Your task to perform on an android device: Check the news Image 0: 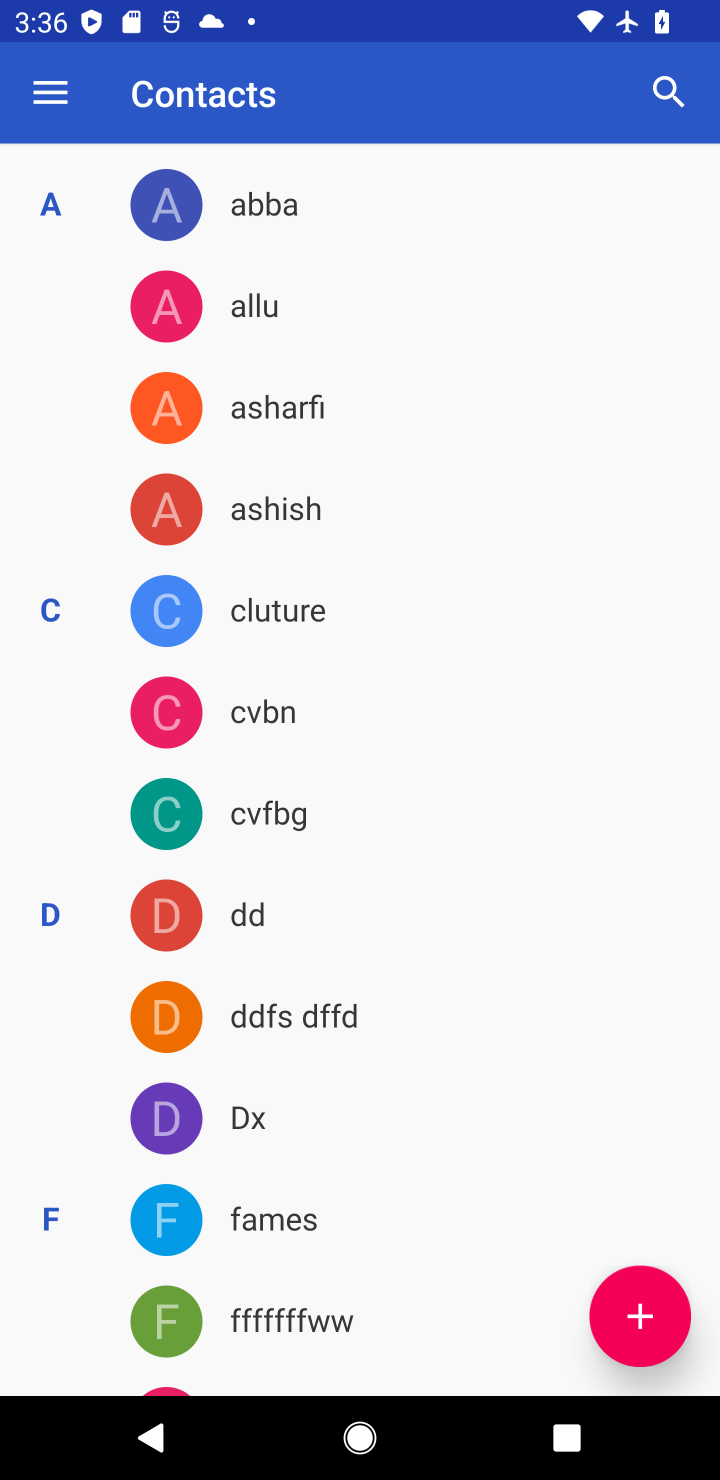
Step 0: press home button
Your task to perform on an android device: Check the news Image 1: 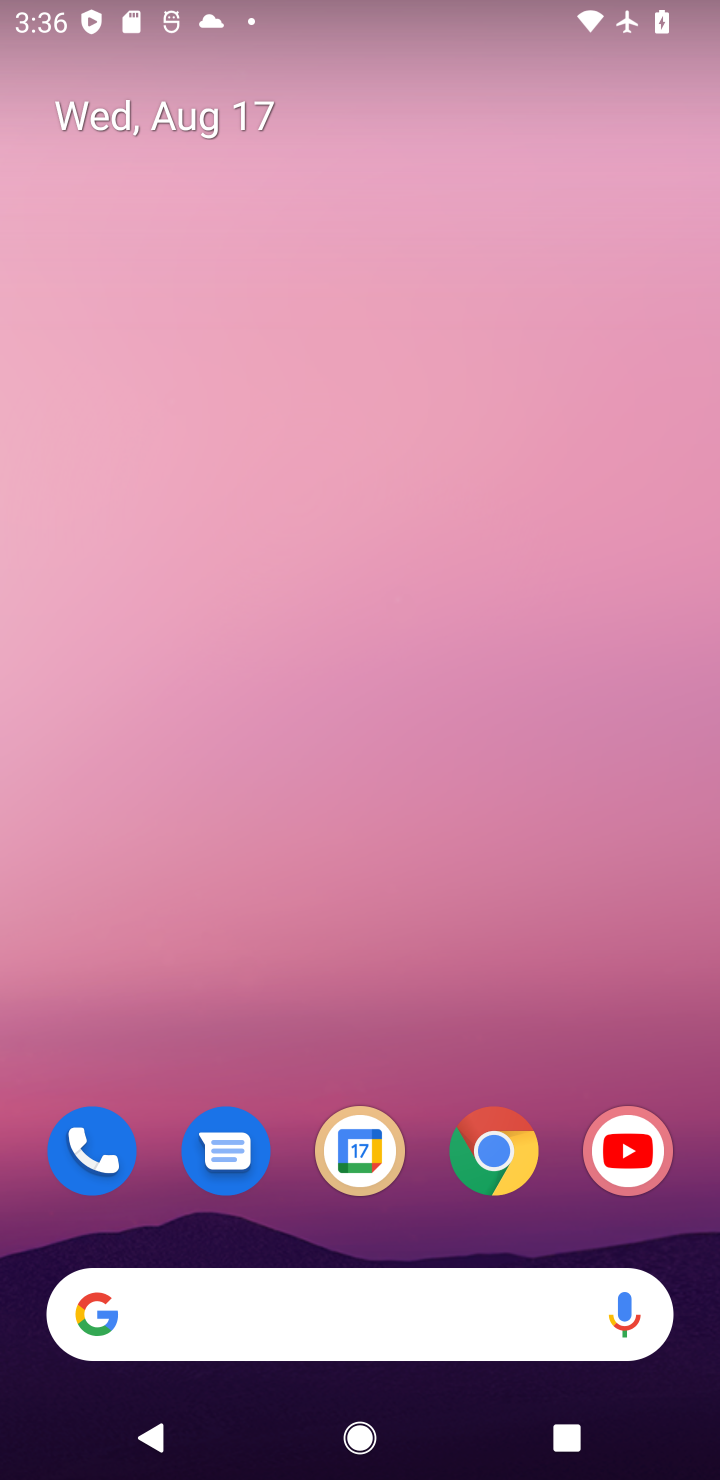
Step 1: drag from (283, 426) to (315, 28)
Your task to perform on an android device: Check the news Image 2: 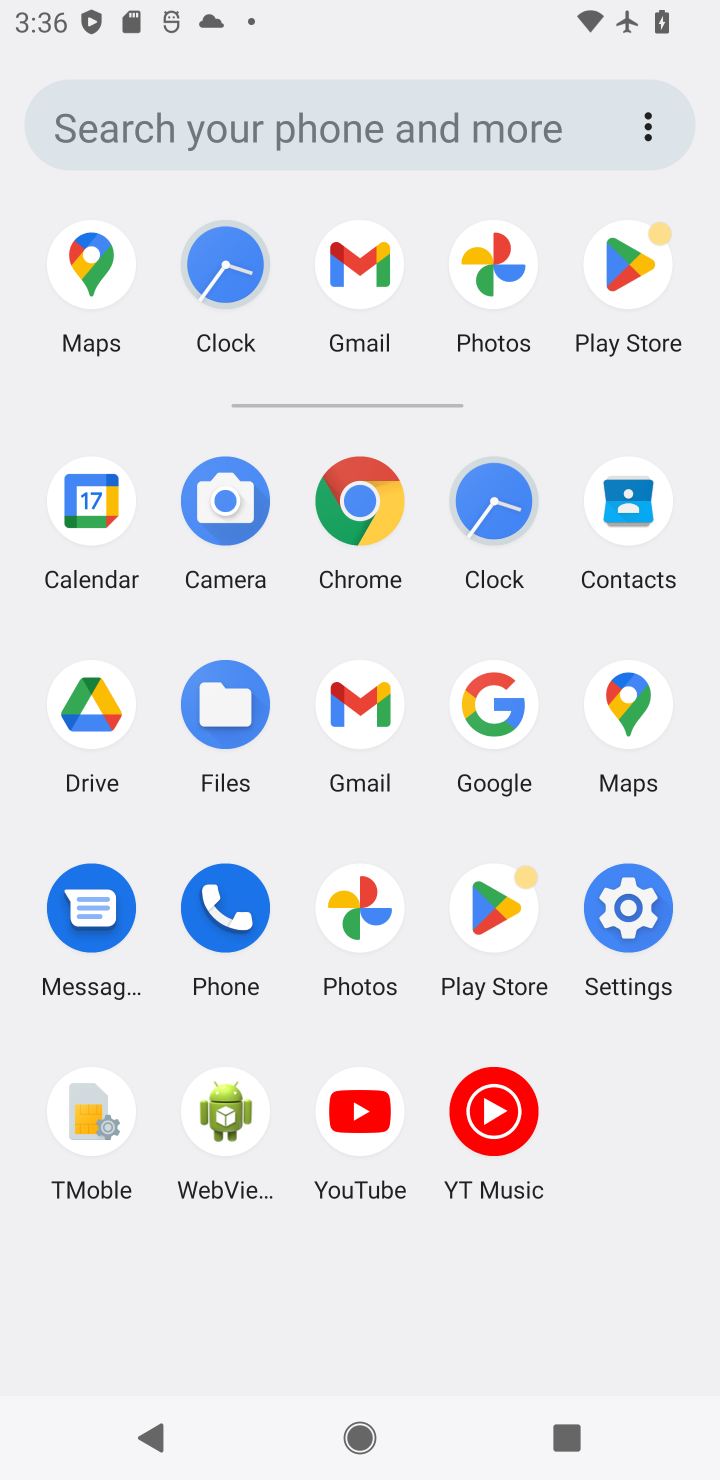
Step 2: click (391, 505)
Your task to perform on an android device: Check the news Image 3: 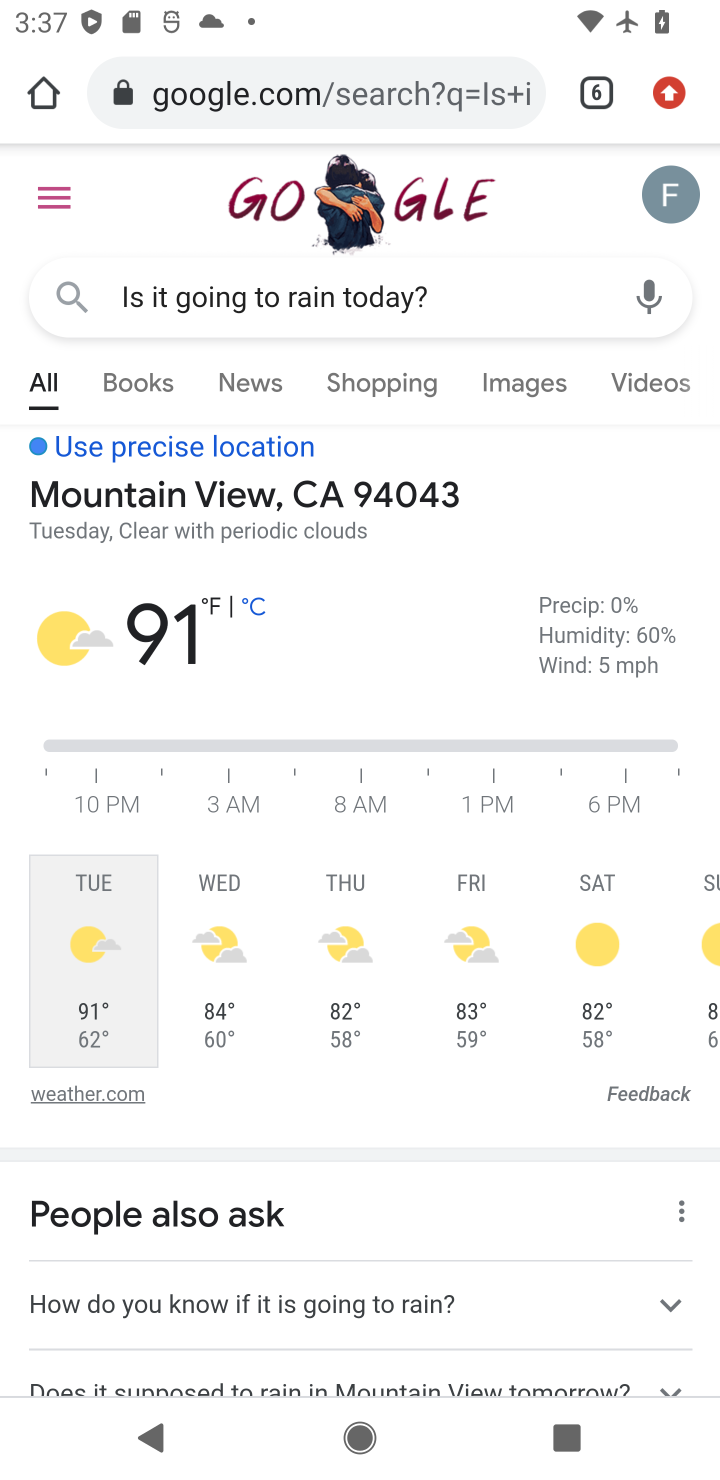
Step 3: click (661, 96)
Your task to perform on an android device: Check the news Image 4: 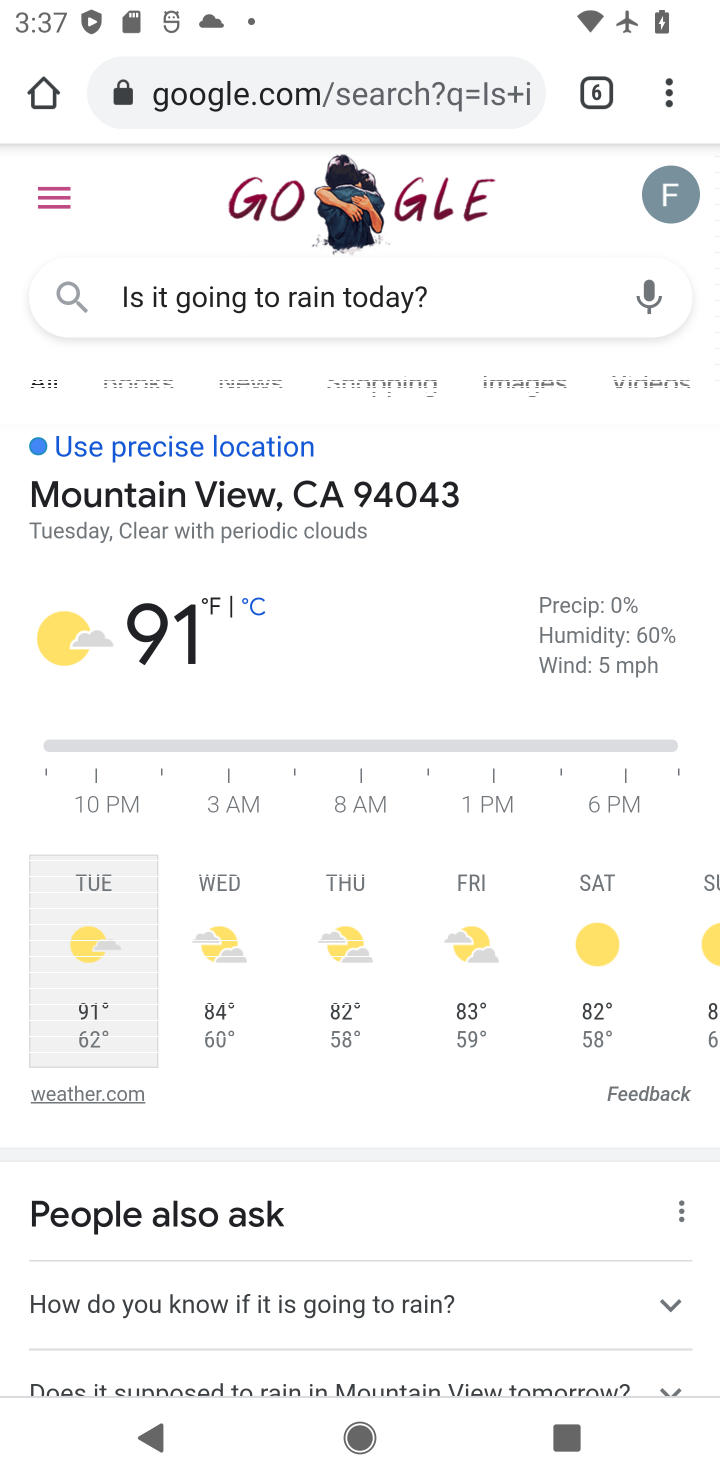
Step 4: click (673, 100)
Your task to perform on an android device: Check the news Image 5: 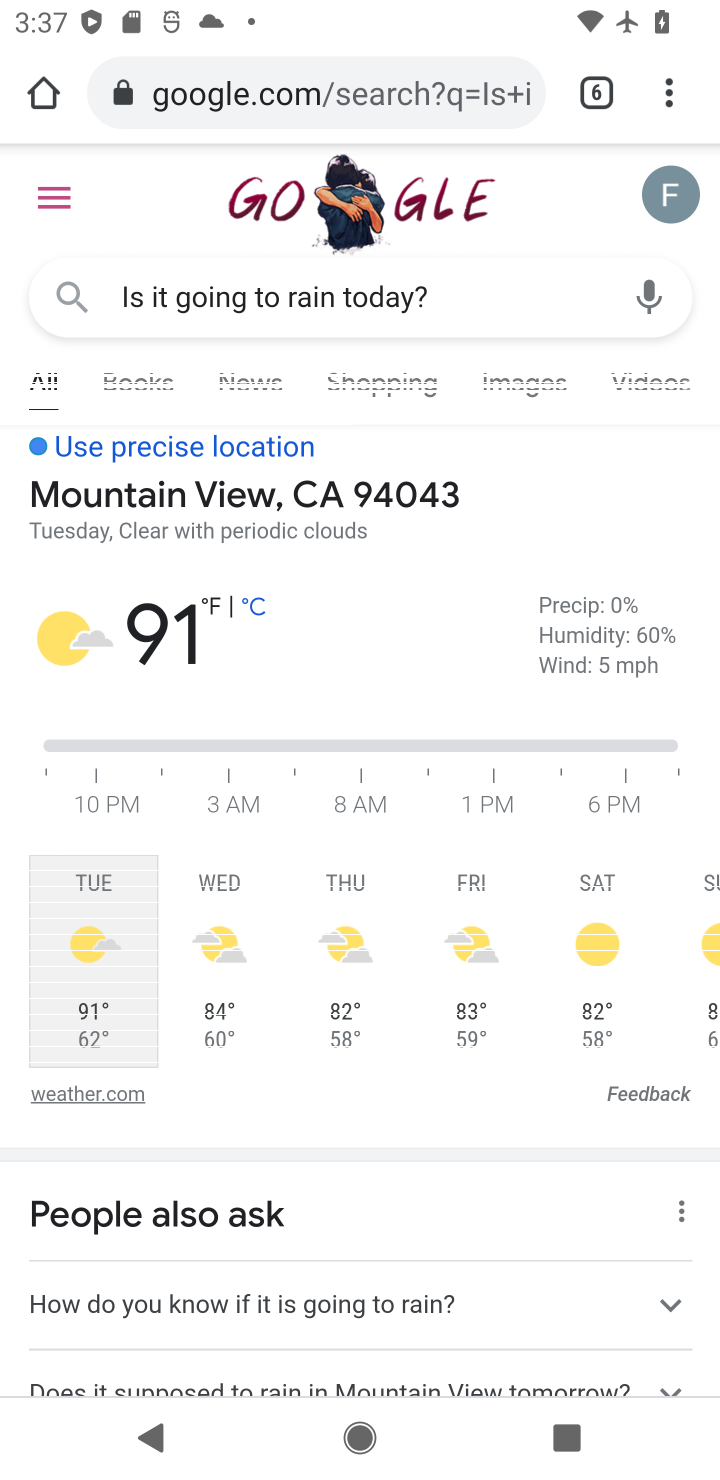
Step 5: click (643, 93)
Your task to perform on an android device: Check the news Image 6: 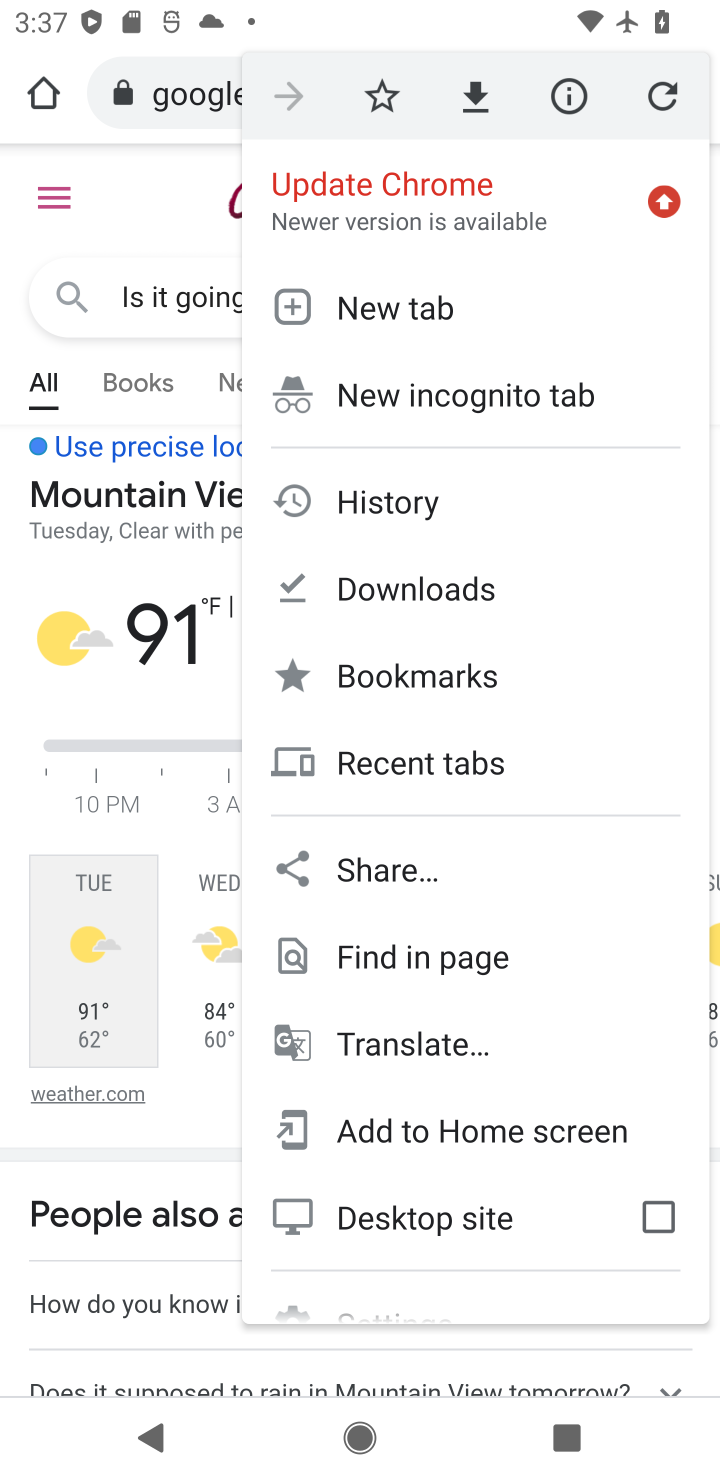
Step 6: click (390, 301)
Your task to perform on an android device: Check the news Image 7: 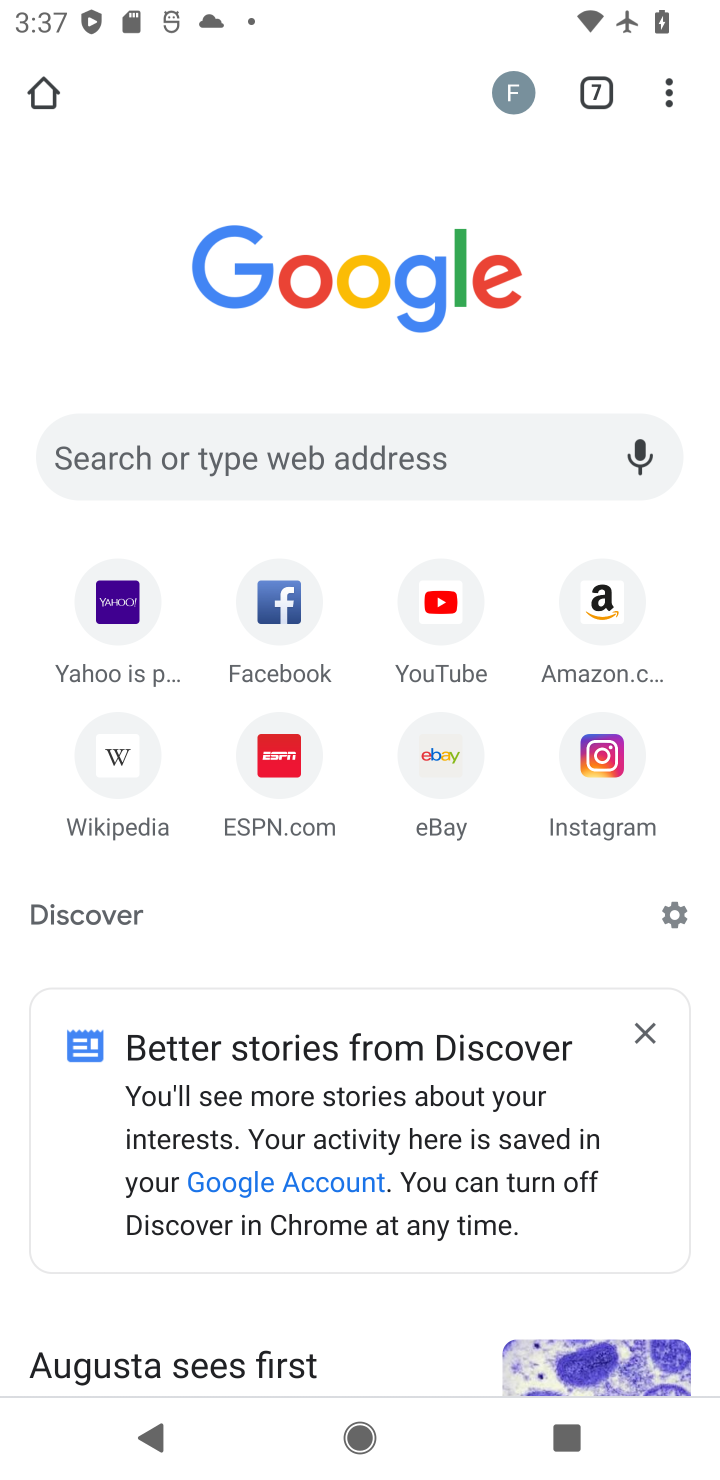
Step 7: click (203, 448)
Your task to perform on an android device: Check the news Image 8: 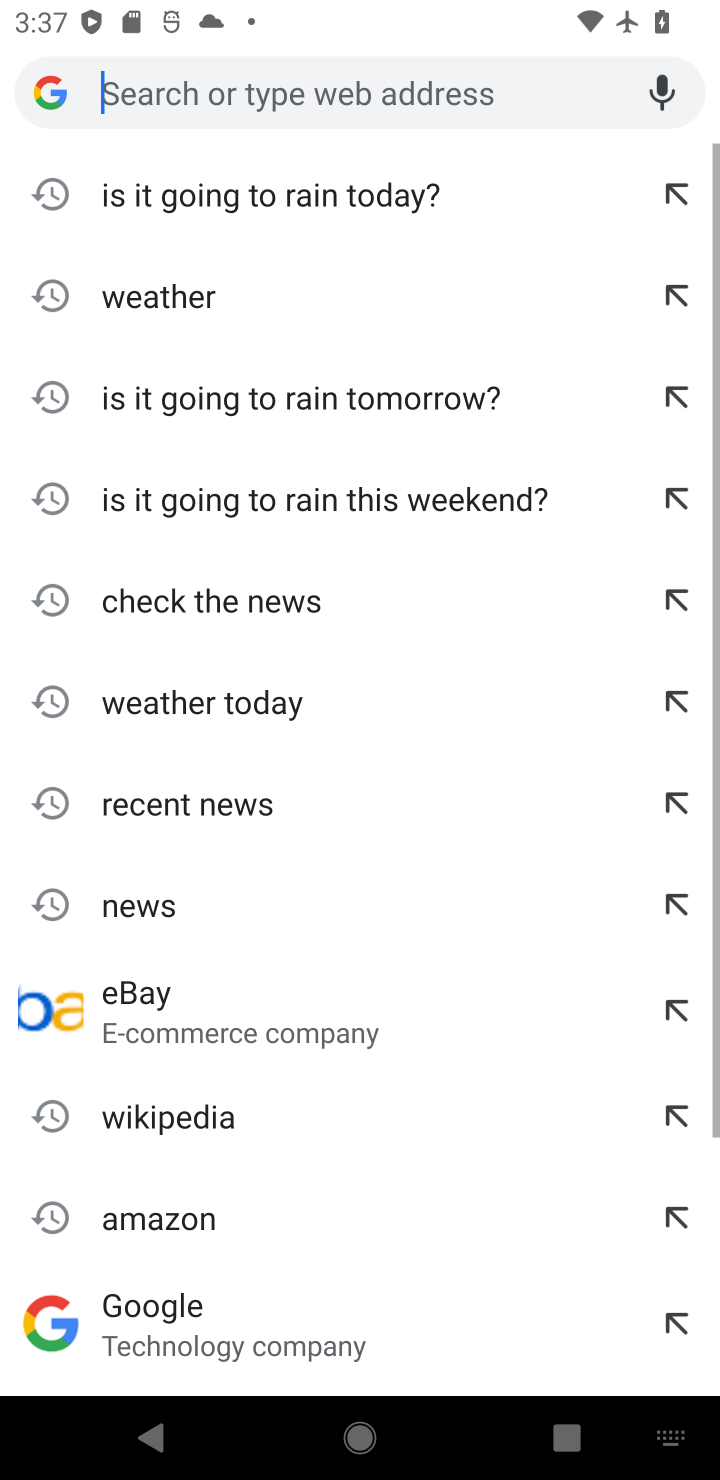
Step 8: type "Check the news "
Your task to perform on an android device: Check the news Image 9: 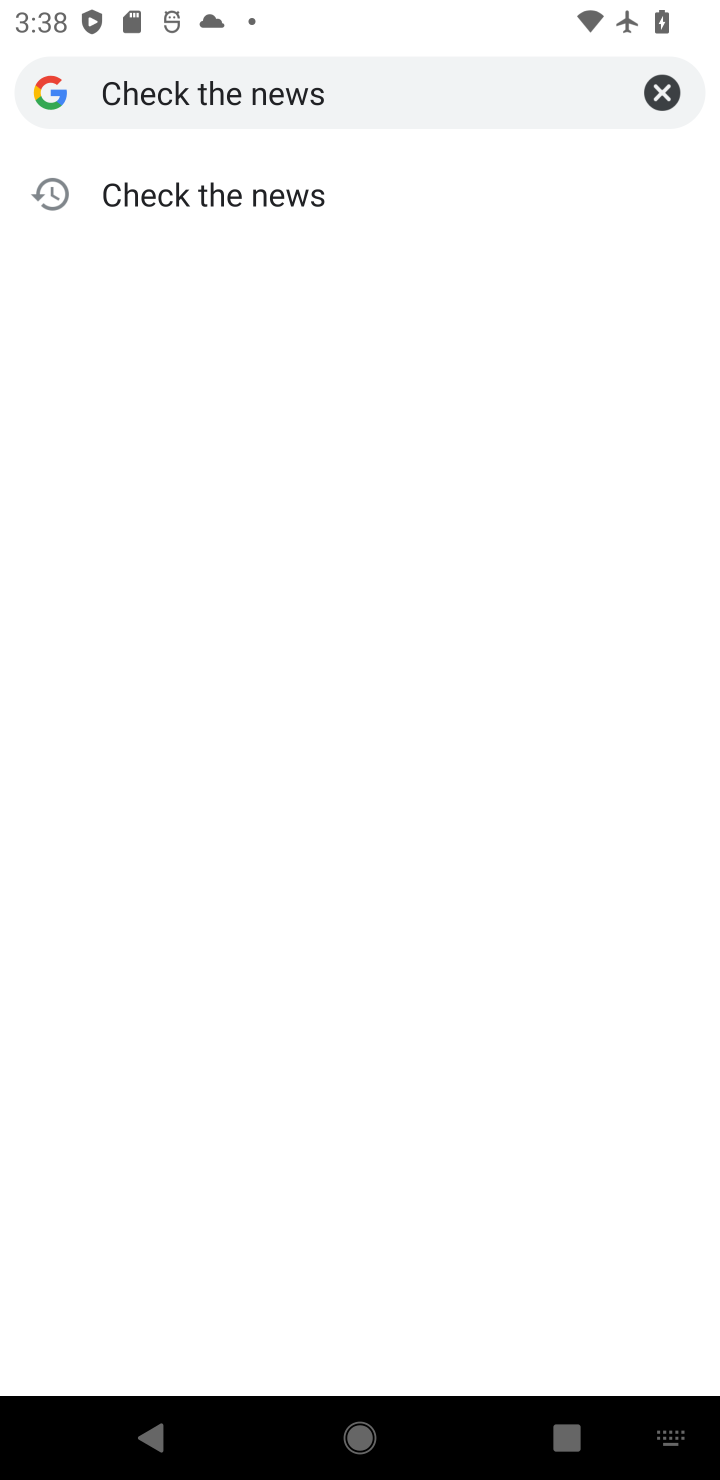
Step 9: click (159, 203)
Your task to perform on an android device: Check the news Image 10: 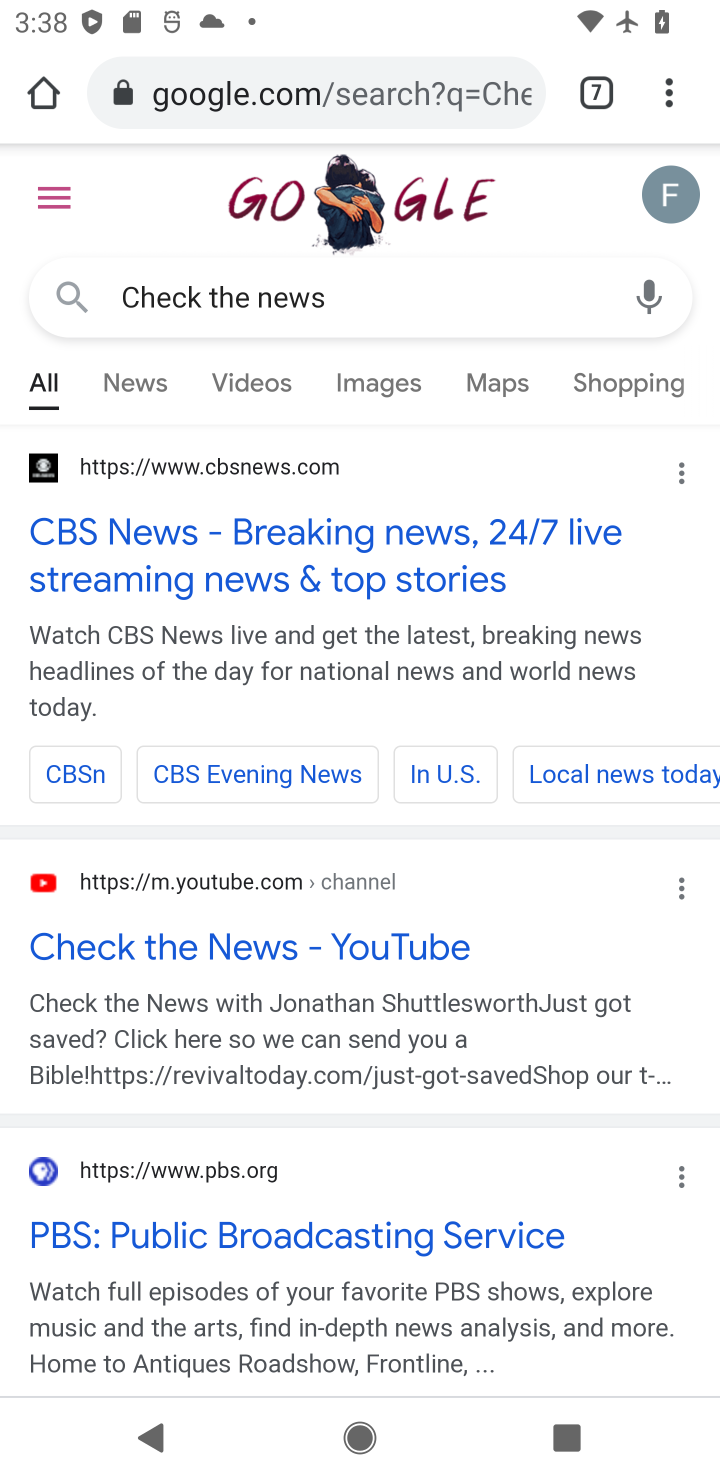
Step 10: task complete